Your task to perform on an android device: turn off airplane mode Image 0: 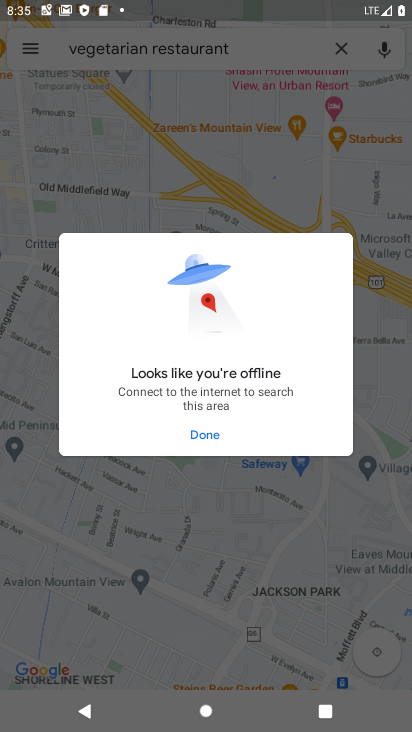
Step 0: press home button
Your task to perform on an android device: turn off airplane mode Image 1: 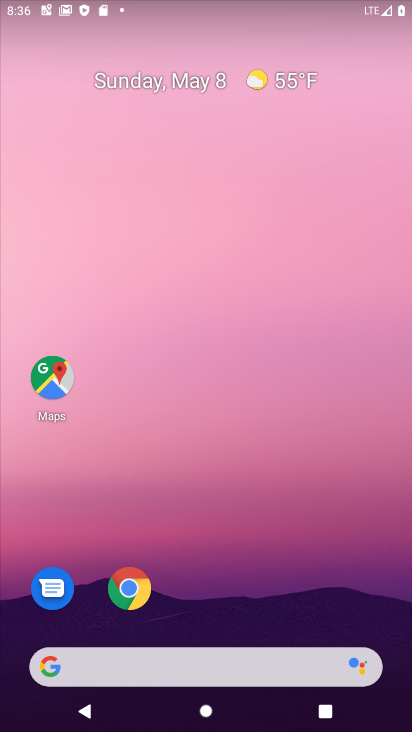
Step 1: task complete